Your task to perform on an android device: Go to location settings Image 0: 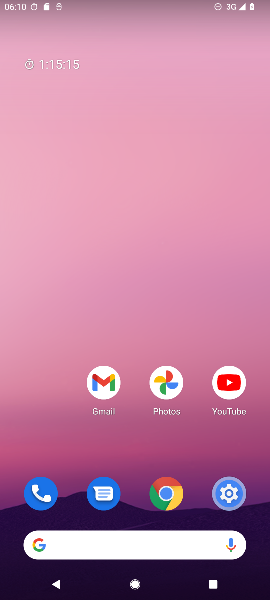
Step 0: drag from (62, 470) to (93, 131)
Your task to perform on an android device: Go to location settings Image 1: 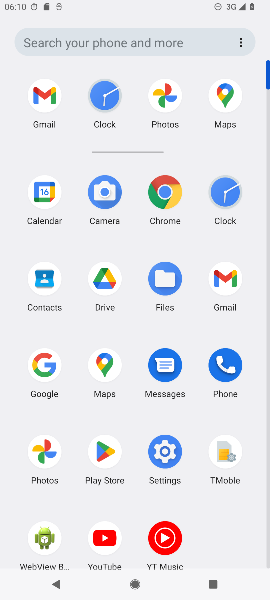
Step 1: click (165, 454)
Your task to perform on an android device: Go to location settings Image 2: 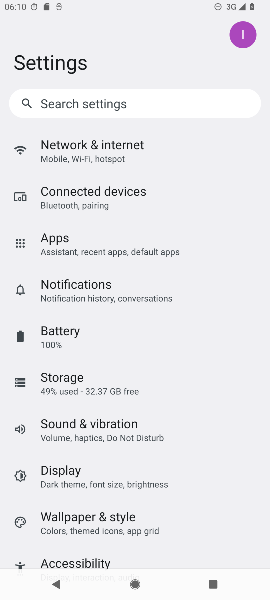
Step 2: drag from (230, 462) to (232, 386)
Your task to perform on an android device: Go to location settings Image 3: 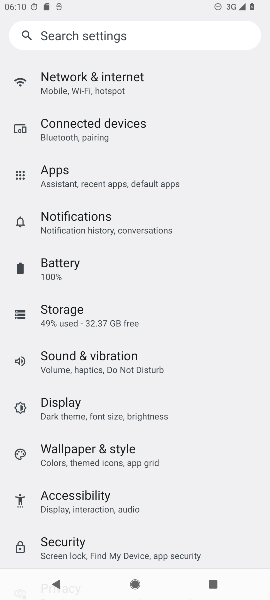
Step 3: drag from (212, 468) to (222, 369)
Your task to perform on an android device: Go to location settings Image 4: 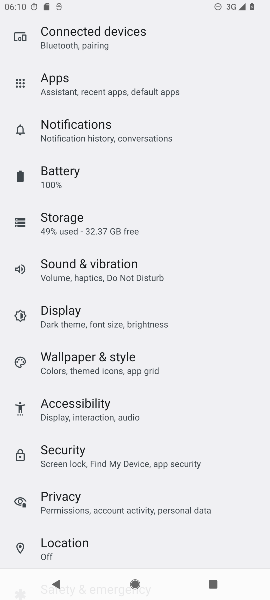
Step 4: drag from (216, 507) to (234, 431)
Your task to perform on an android device: Go to location settings Image 5: 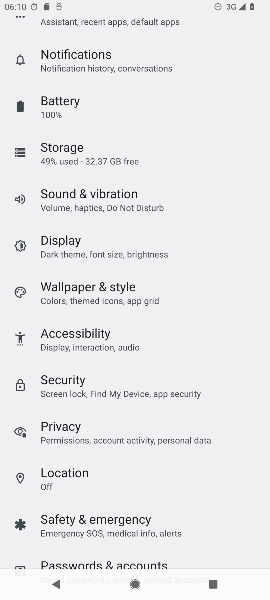
Step 5: drag from (230, 491) to (235, 424)
Your task to perform on an android device: Go to location settings Image 6: 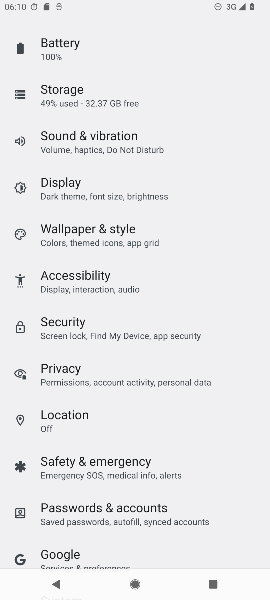
Step 6: drag from (218, 510) to (228, 404)
Your task to perform on an android device: Go to location settings Image 7: 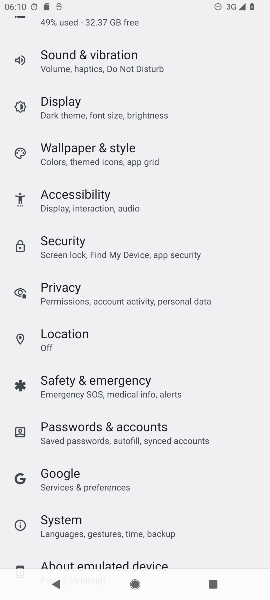
Step 7: drag from (225, 503) to (228, 389)
Your task to perform on an android device: Go to location settings Image 8: 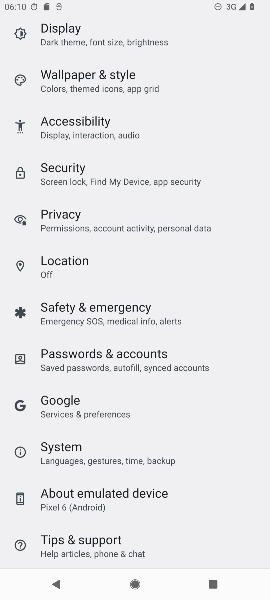
Step 8: drag from (228, 506) to (233, 387)
Your task to perform on an android device: Go to location settings Image 9: 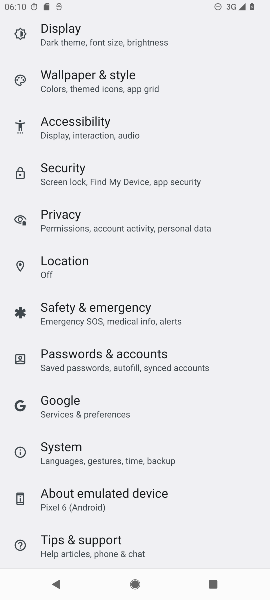
Step 9: click (89, 258)
Your task to perform on an android device: Go to location settings Image 10: 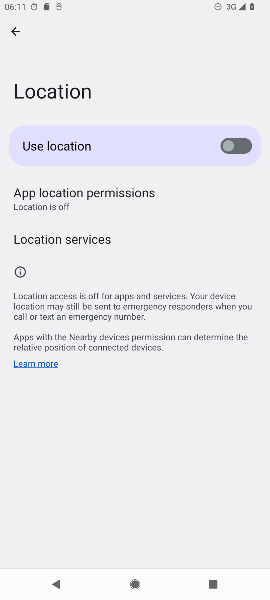
Step 10: task complete